Your task to perform on an android device: Show me recent news Image 0: 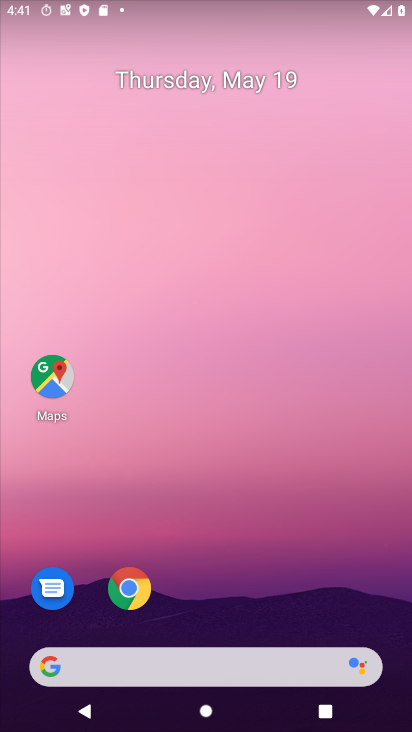
Step 0: drag from (219, 581) to (274, 31)
Your task to perform on an android device: Show me recent news Image 1: 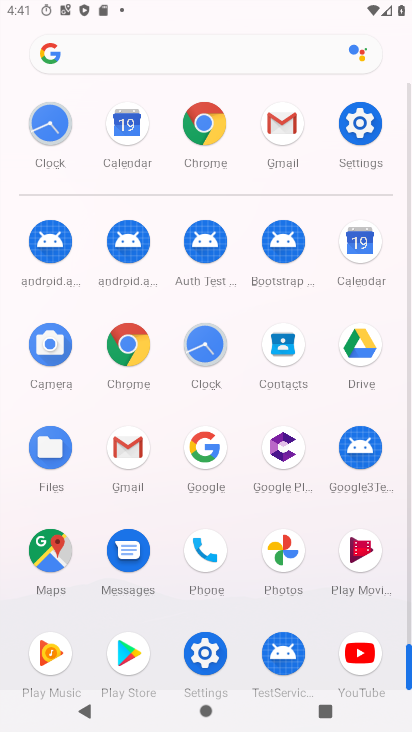
Step 1: click (210, 43)
Your task to perform on an android device: Show me recent news Image 2: 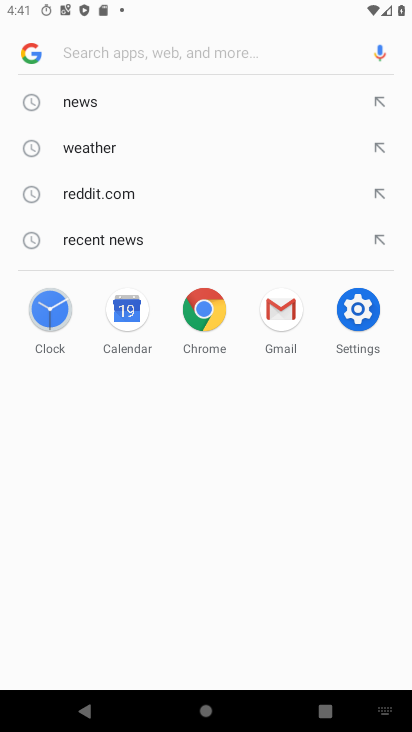
Step 2: type "recent news"
Your task to perform on an android device: Show me recent news Image 3: 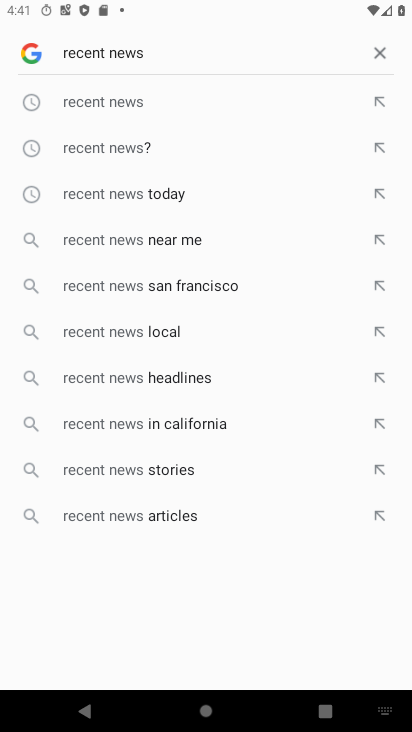
Step 3: click (150, 92)
Your task to perform on an android device: Show me recent news Image 4: 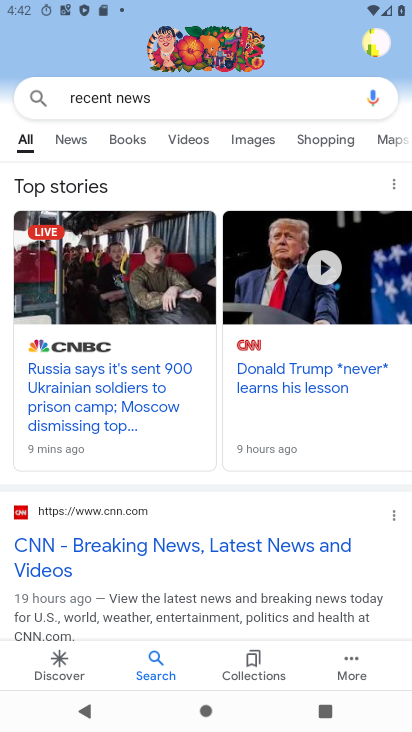
Step 4: task complete